Your task to perform on an android device: toggle pop-ups in chrome Image 0: 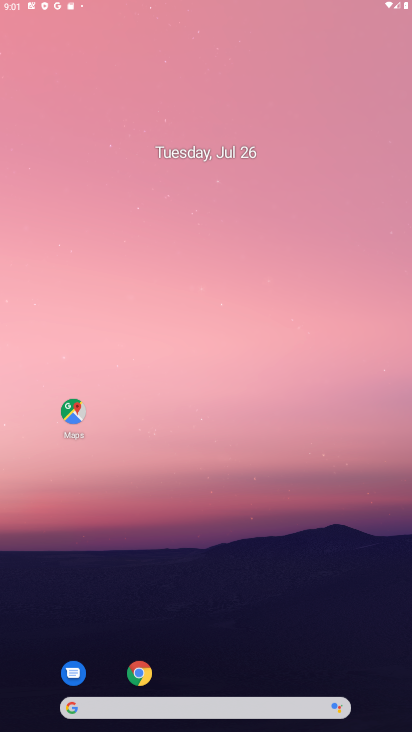
Step 0: click (263, 250)
Your task to perform on an android device: toggle pop-ups in chrome Image 1: 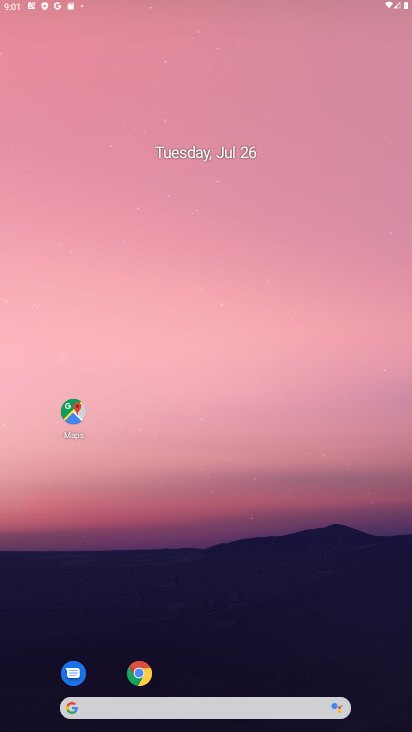
Step 1: drag from (252, 460) to (203, 138)
Your task to perform on an android device: toggle pop-ups in chrome Image 2: 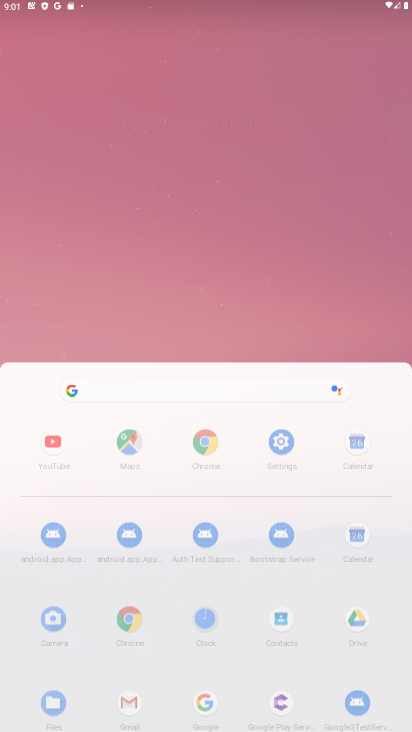
Step 2: drag from (230, 431) to (230, 174)
Your task to perform on an android device: toggle pop-ups in chrome Image 3: 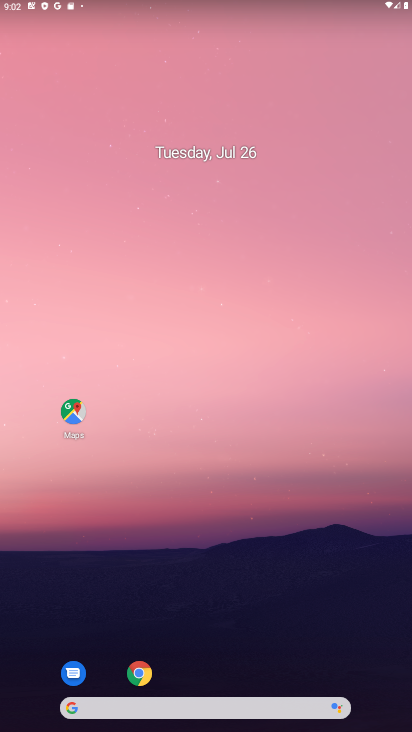
Step 3: drag from (235, 327) to (234, 174)
Your task to perform on an android device: toggle pop-ups in chrome Image 4: 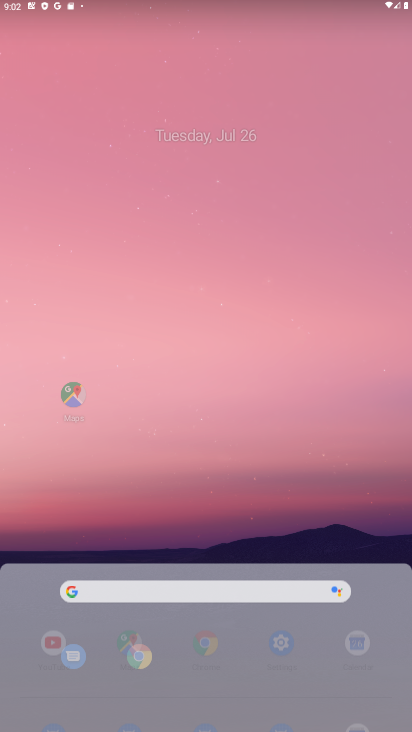
Step 4: drag from (227, 568) to (209, 227)
Your task to perform on an android device: toggle pop-ups in chrome Image 5: 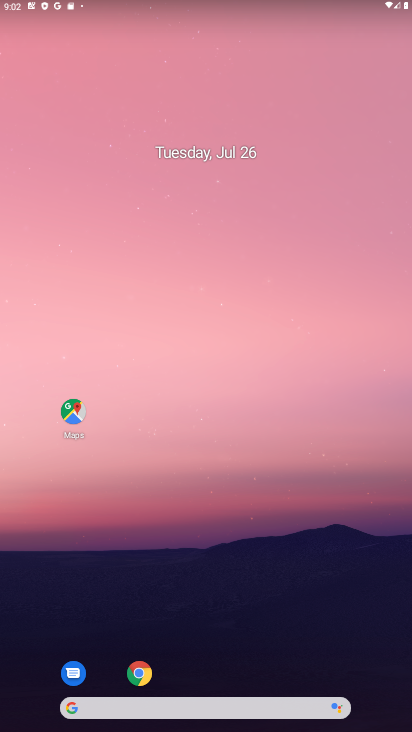
Step 5: drag from (284, 333) to (262, 200)
Your task to perform on an android device: toggle pop-ups in chrome Image 6: 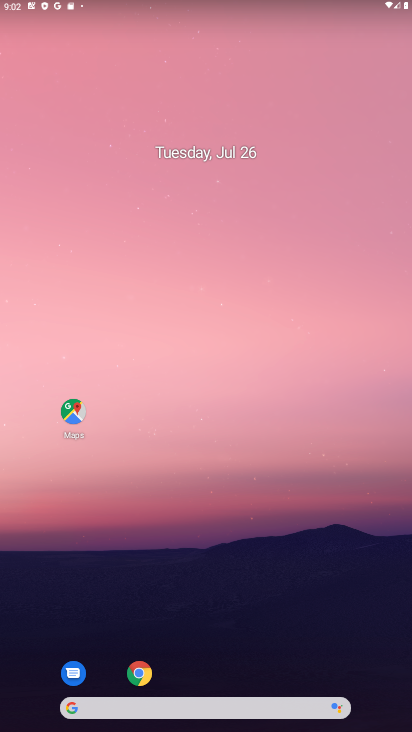
Step 6: drag from (184, 399) to (171, 258)
Your task to perform on an android device: toggle pop-ups in chrome Image 7: 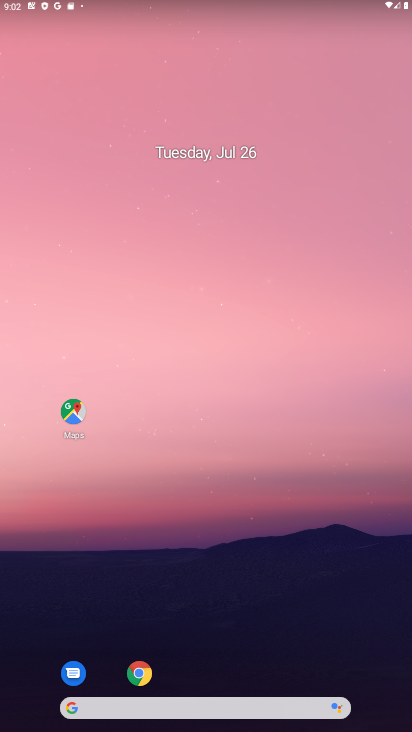
Step 7: click (207, 247)
Your task to perform on an android device: toggle pop-ups in chrome Image 8: 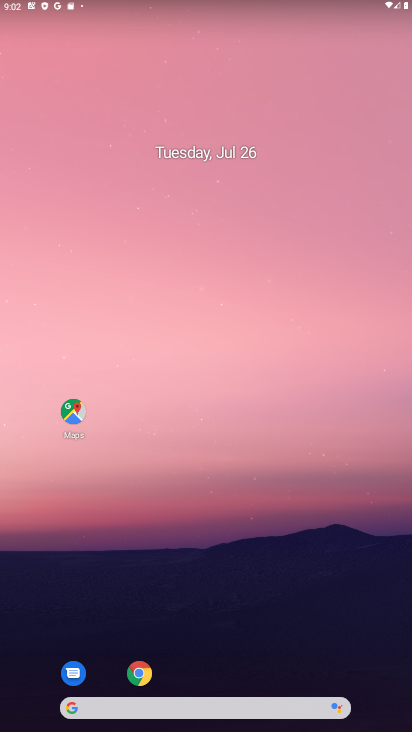
Step 8: drag from (228, 527) to (213, 255)
Your task to perform on an android device: toggle pop-ups in chrome Image 9: 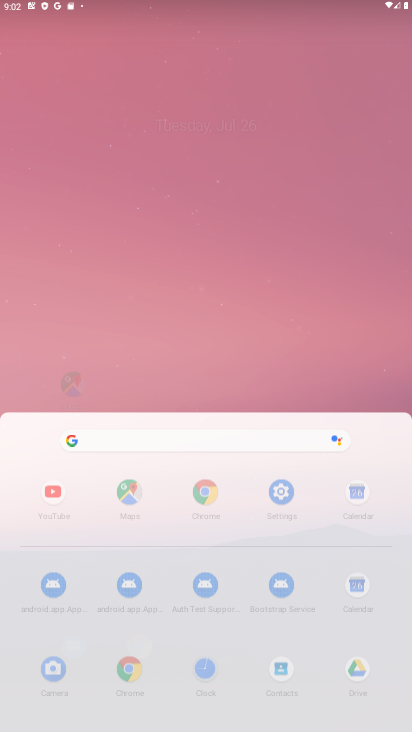
Step 9: drag from (219, 364) to (245, 128)
Your task to perform on an android device: toggle pop-ups in chrome Image 10: 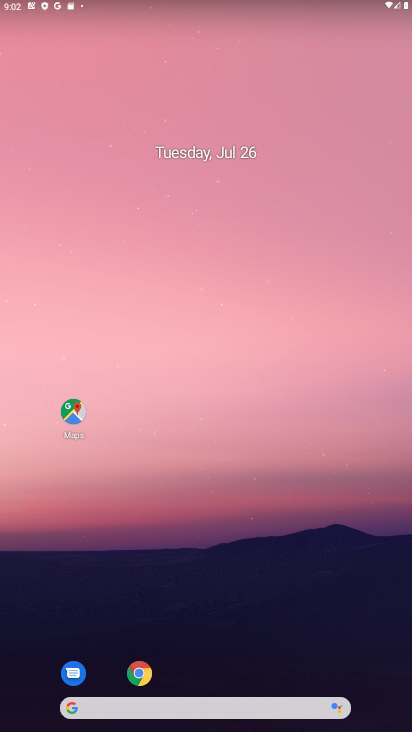
Step 10: drag from (262, 477) to (247, 211)
Your task to perform on an android device: toggle pop-ups in chrome Image 11: 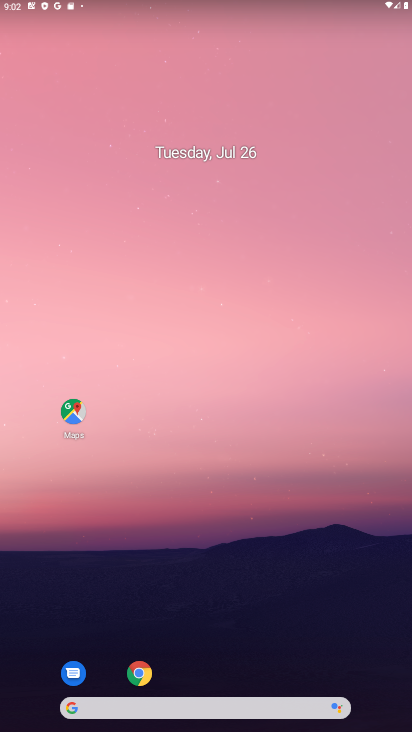
Step 11: drag from (219, 485) to (195, 155)
Your task to perform on an android device: toggle pop-ups in chrome Image 12: 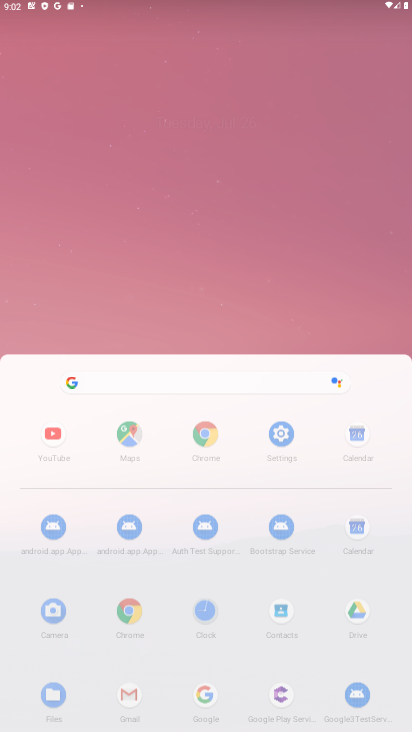
Step 12: click (230, 204)
Your task to perform on an android device: toggle pop-ups in chrome Image 13: 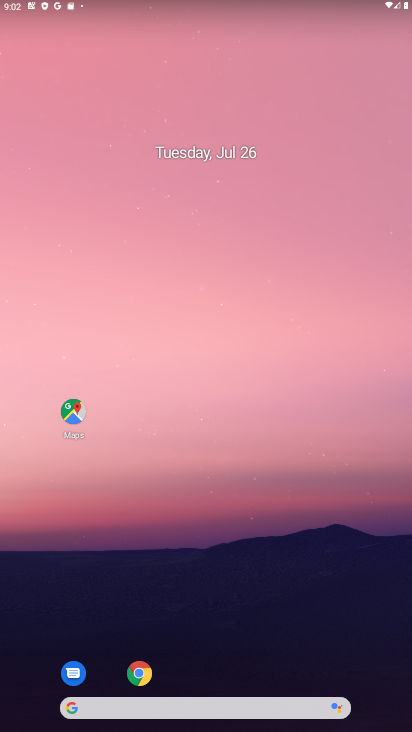
Step 13: drag from (192, 623) to (209, 287)
Your task to perform on an android device: toggle pop-ups in chrome Image 14: 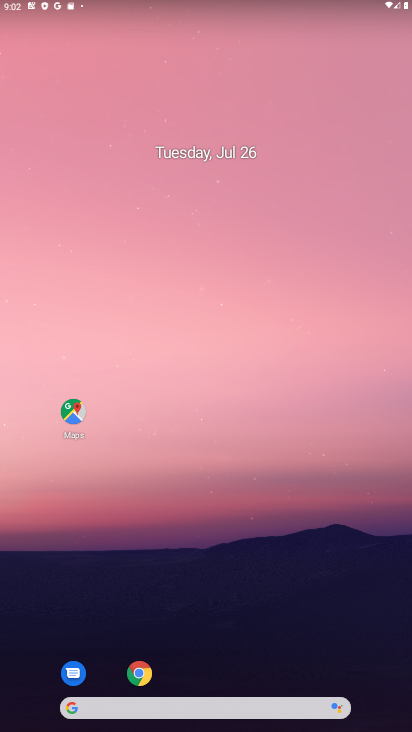
Step 14: drag from (176, 390) to (170, 141)
Your task to perform on an android device: toggle pop-ups in chrome Image 15: 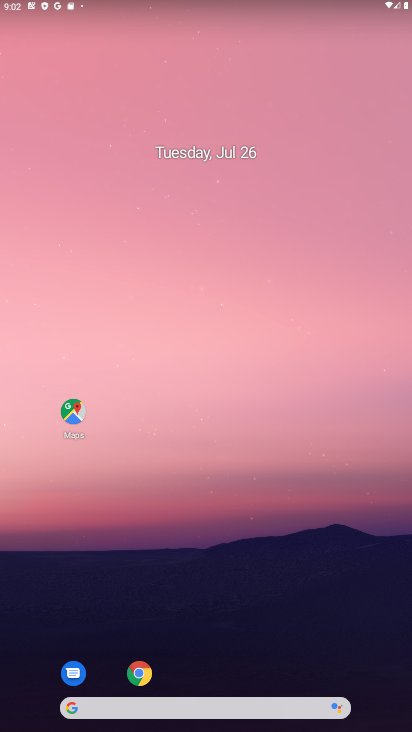
Step 15: drag from (218, 505) to (236, 148)
Your task to perform on an android device: toggle pop-ups in chrome Image 16: 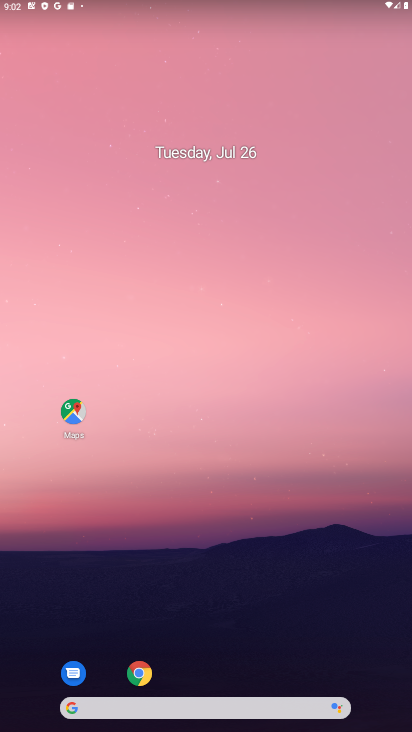
Step 16: drag from (255, 317) to (241, 74)
Your task to perform on an android device: toggle pop-ups in chrome Image 17: 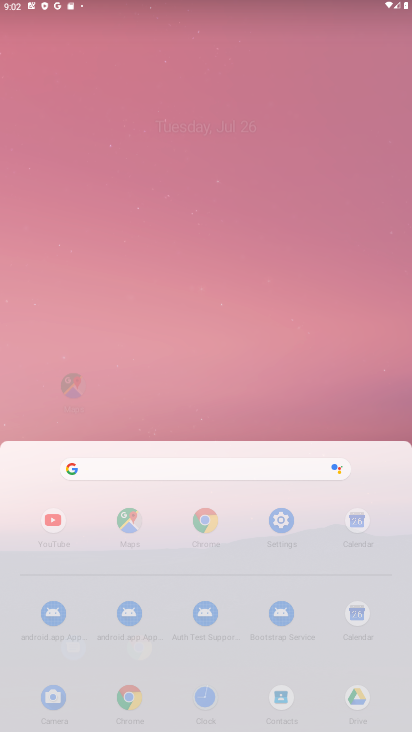
Step 17: drag from (246, 448) to (218, 233)
Your task to perform on an android device: toggle pop-ups in chrome Image 18: 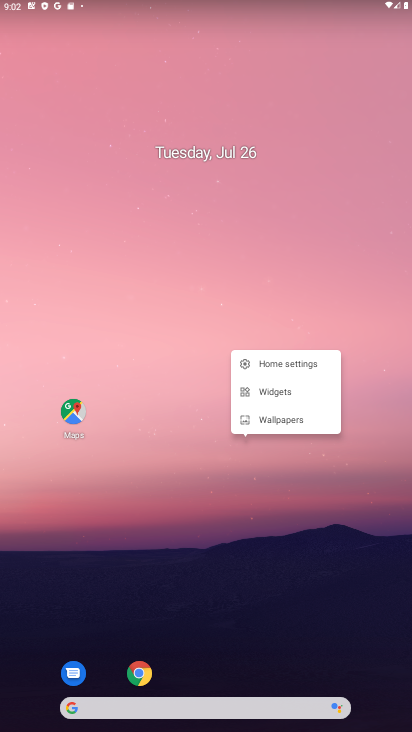
Step 18: drag from (126, 361) to (82, 26)
Your task to perform on an android device: toggle pop-ups in chrome Image 19: 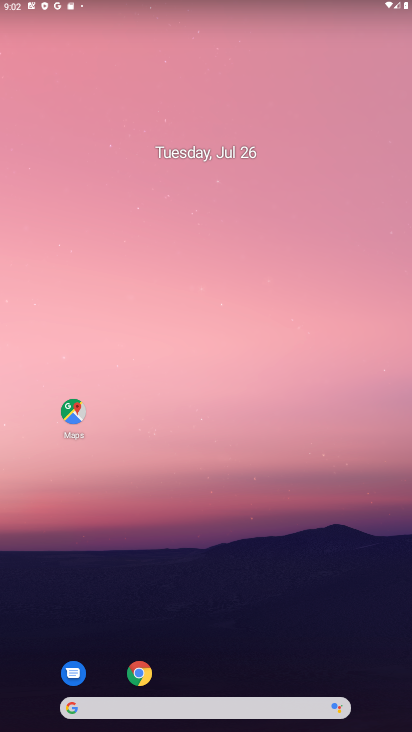
Step 19: drag from (180, 532) to (172, 78)
Your task to perform on an android device: toggle pop-ups in chrome Image 20: 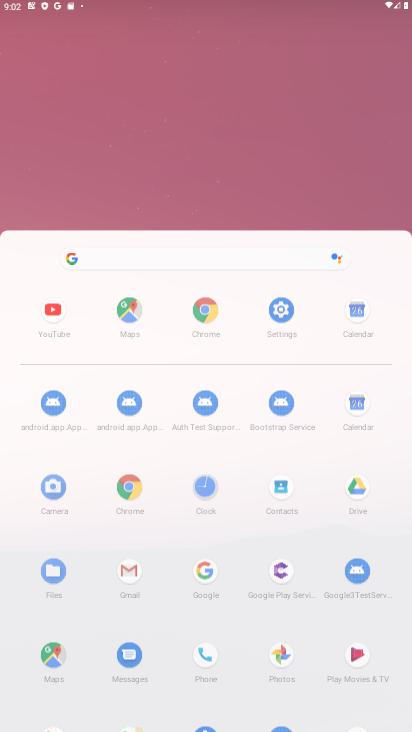
Step 20: drag from (223, 100) to (215, 44)
Your task to perform on an android device: toggle pop-ups in chrome Image 21: 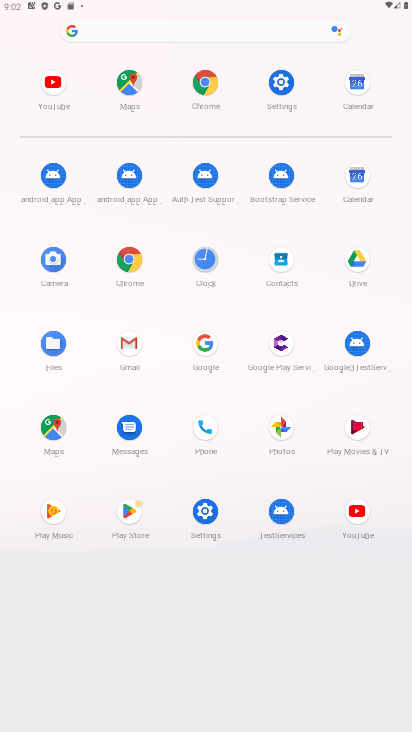
Step 21: drag from (190, 354) to (144, 90)
Your task to perform on an android device: toggle pop-ups in chrome Image 22: 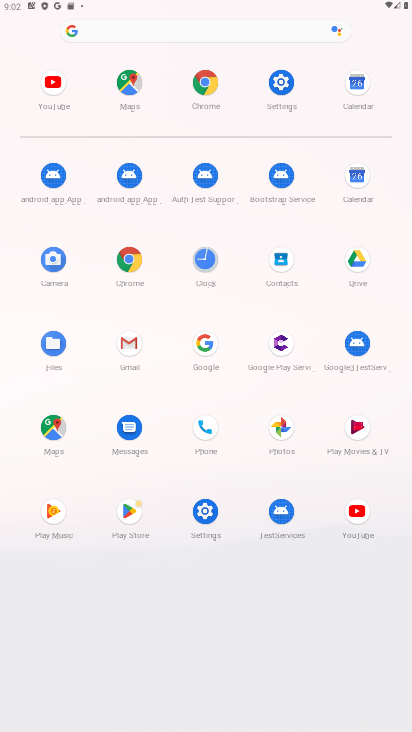
Step 22: click (198, 83)
Your task to perform on an android device: toggle pop-ups in chrome Image 23: 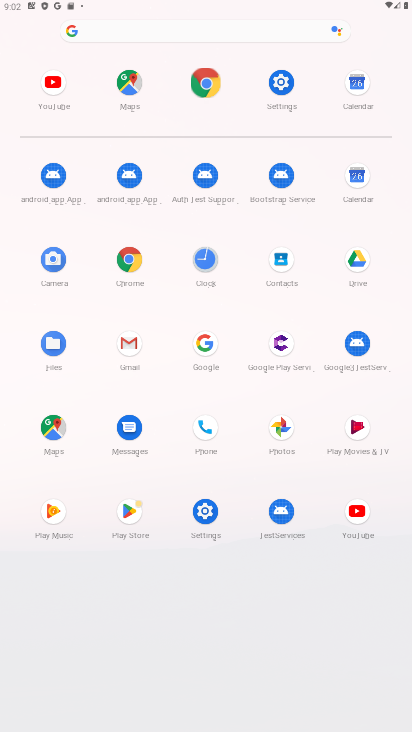
Step 23: click (198, 83)
Your task to perform on an android device: toggle pop-ups in chrome Image 24: 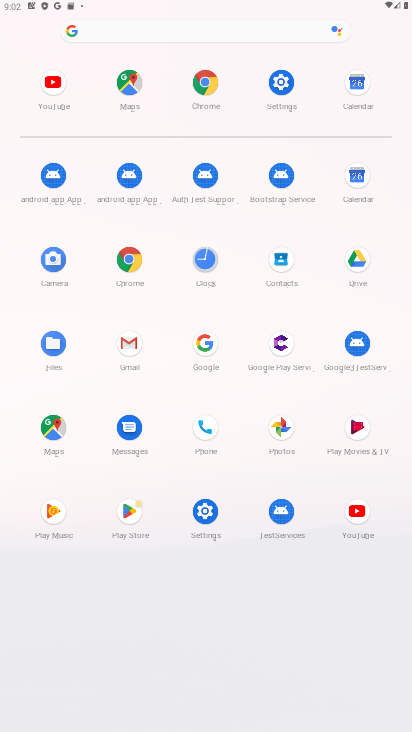
Step 24: click (198, 83)
Your task to perform on an android device: toggle pop-ups in chrome Image 25: 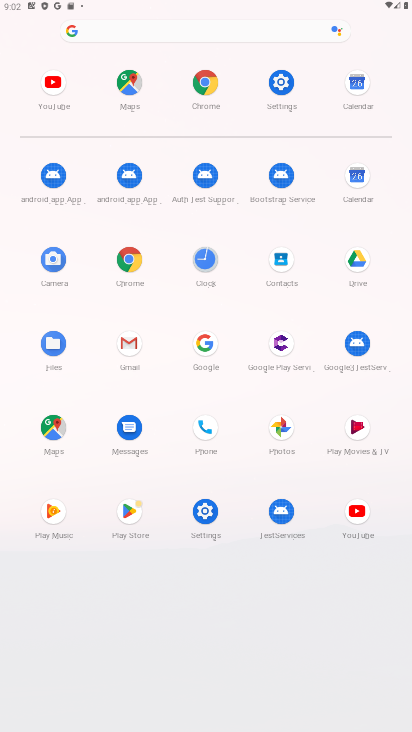
Step 25: click (198, 83)
Your task to perform on an android device: toggle pop-ups in chrome Image 26: 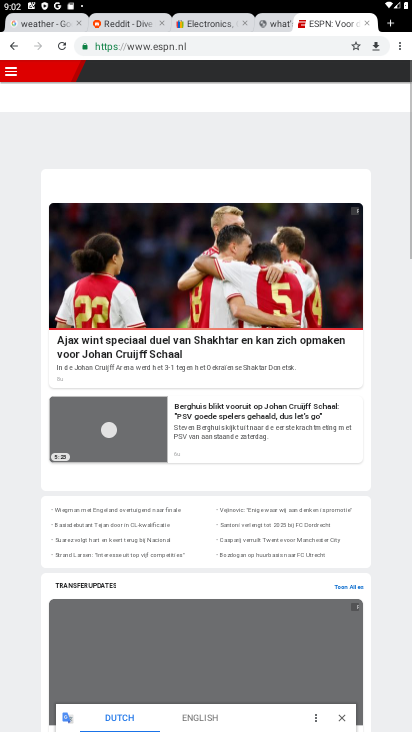
Step 26: click (223, 22)
Your task to perform on an android device: toggle pop-ups in chrome Image 27: 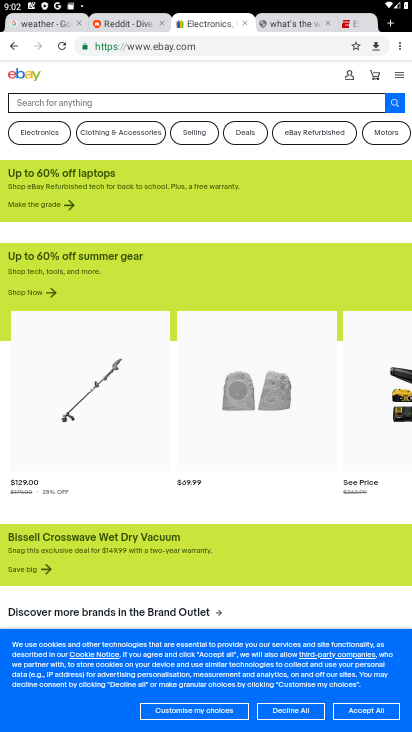
Step 27: drag from (397, 39) to (305, 299)
Your task to perform on an android device: toggle pop-ups in chrome Image 28: 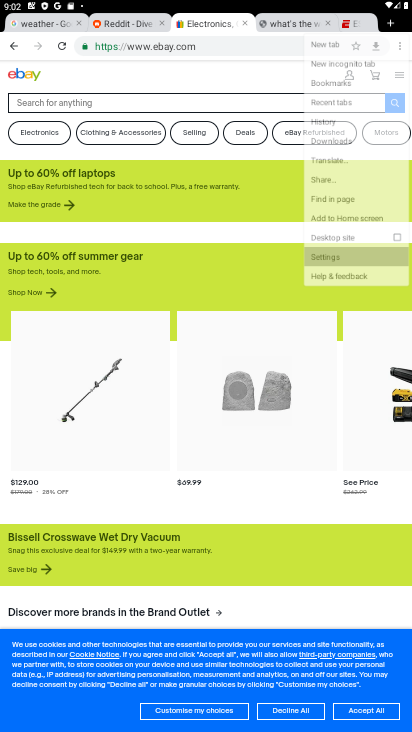
Step 28: click (305, 302)
Your task to perform on an android device: toggle pop-ups in chrome Image 29: 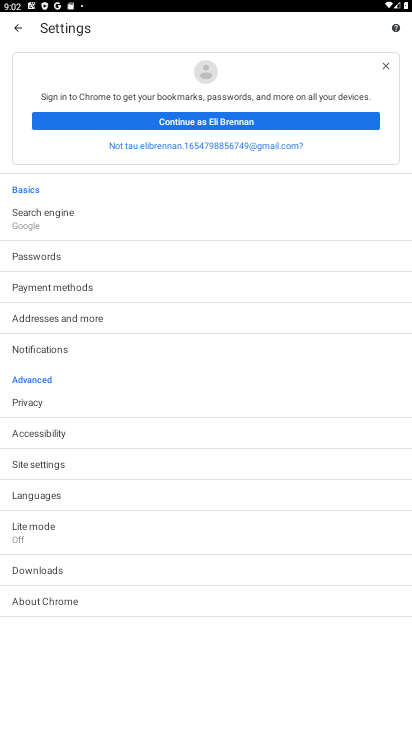
Step 29: click (28, 461)
Your task to perform on an android device: toggle pop-ups in chrome Image 30: 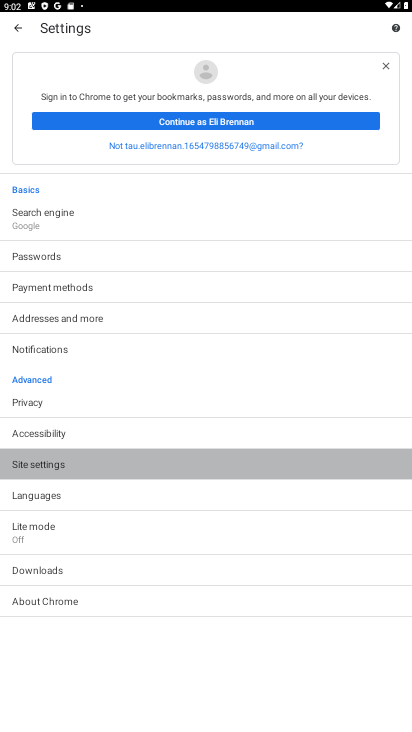
Step 30: click (30, 460)
Your task to perform on an android device: toggle pop-ups in chrome Image 31: 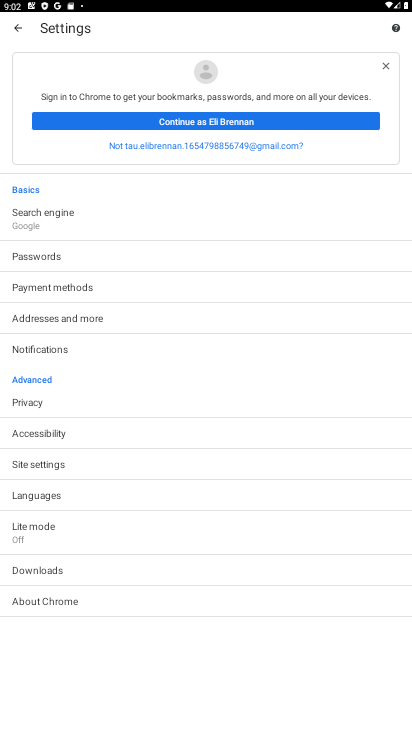
Step 31: click (30, 460)
Your task to perform on an android device: toggle pop-ups in chrome Image 32: 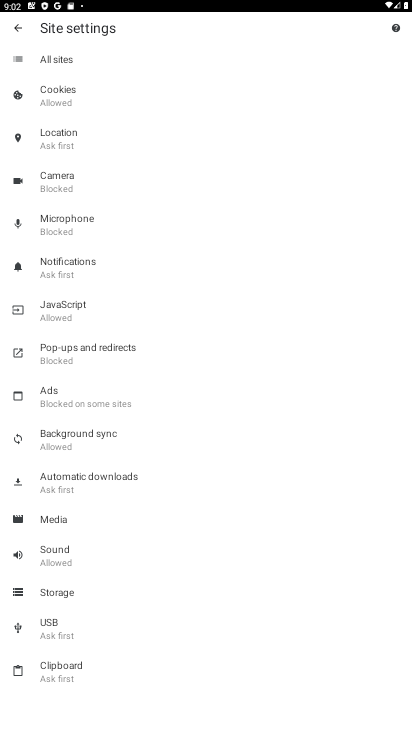
Step 32: click (63, 353)
Your task to perform on an android device: toggle pop-ups in chrome Image 33: 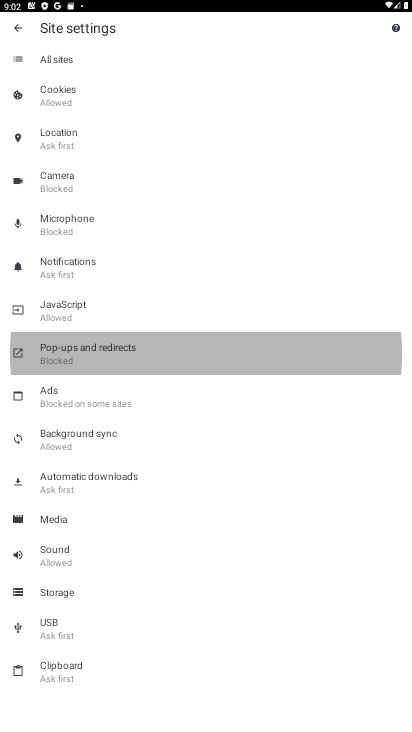
Step 33: click (63, 353)
Your task to perform on an android device: toggle pop-ups in chrome Image 34: 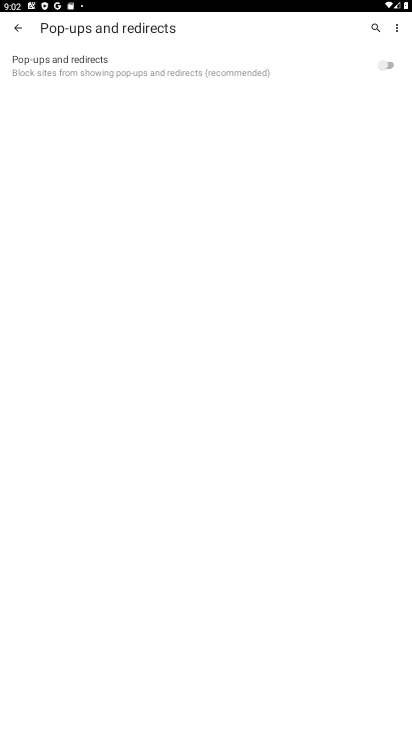
Step 34: click (377, 56)
Your task to perform on an android device: toggle pop-ups in chrome Image 35: 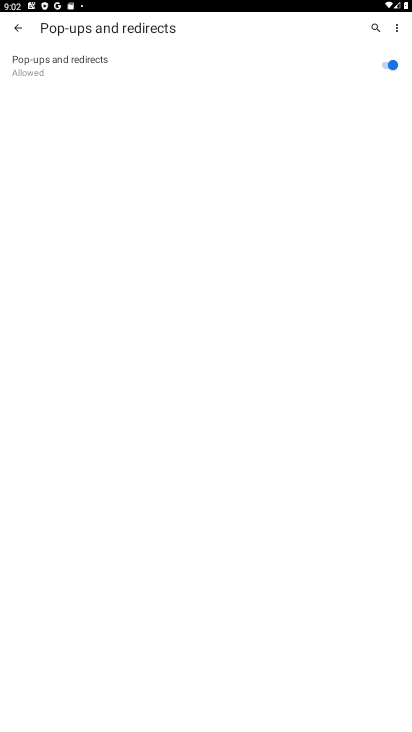
Step 35: task complete